Your task to perform on an android device: Show me productivity apps on the Play Store Image 0: 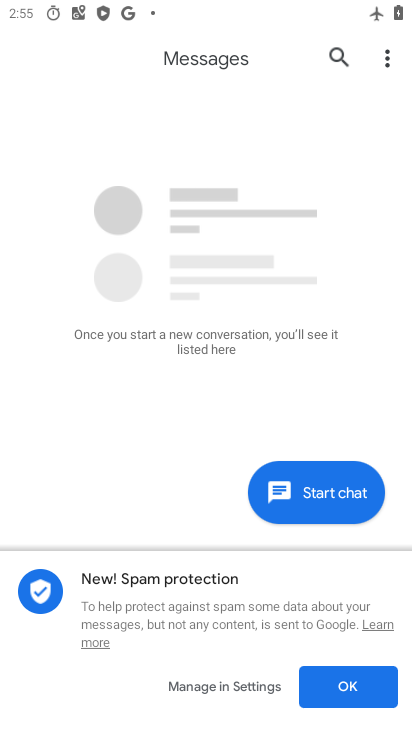
Step 0: click (187, 372)
Your task to perform on an android device: Show me productivity apps on the Play Store Image 1: 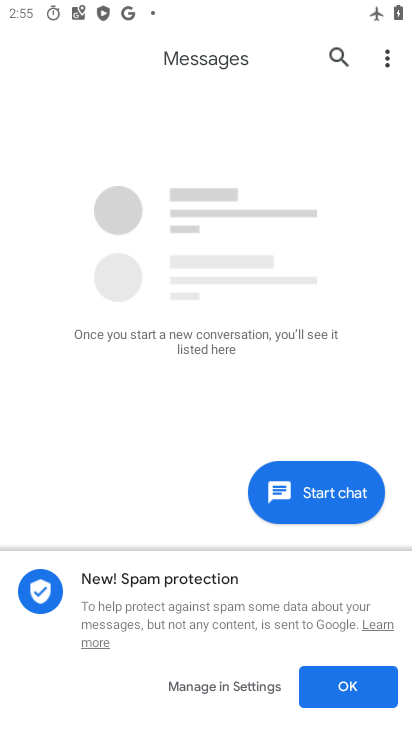
Step 1: press home button
Your task to perform on an android device: Show me productivity apps on the Play Store Image 2: 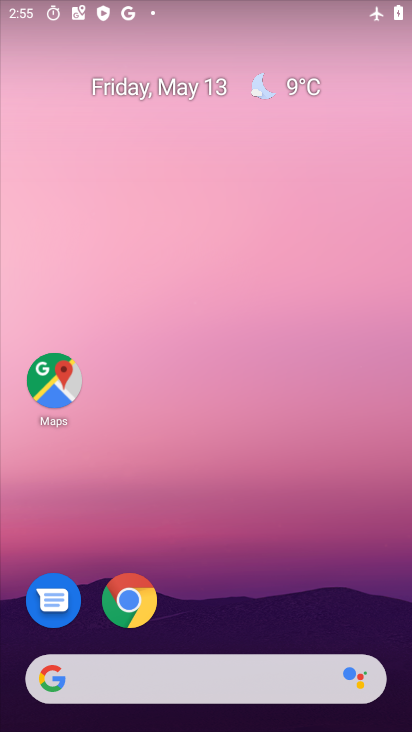
Step 2: drag from (223, 623) to (348, 117)
Your task to perform on an android device: Show me productivity apps on the Play Store Image 3: 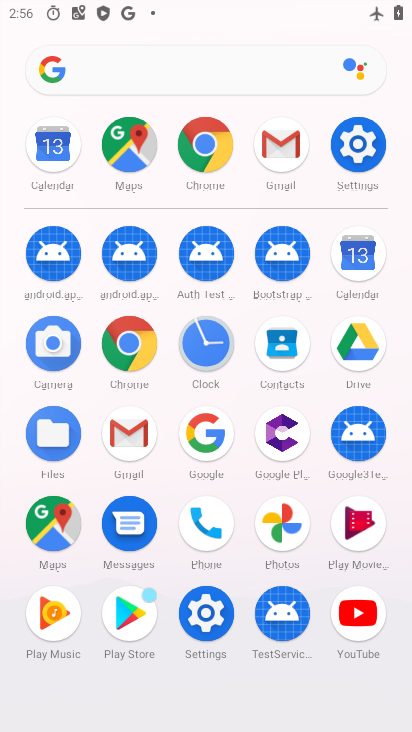
Step 3: click (130, 614)
Your task to perform on an android device: Show me productivity apps on the Play Store Image 4: 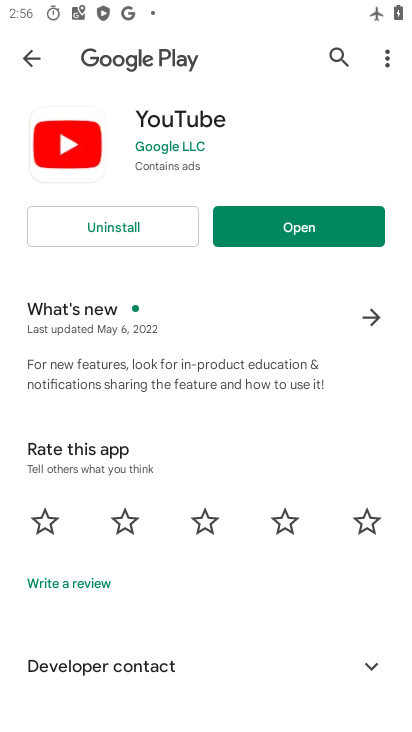
Step 4: click (14, 59)
Your task to perform on an android device: Show me productivity apps on the Play Store Image 5: 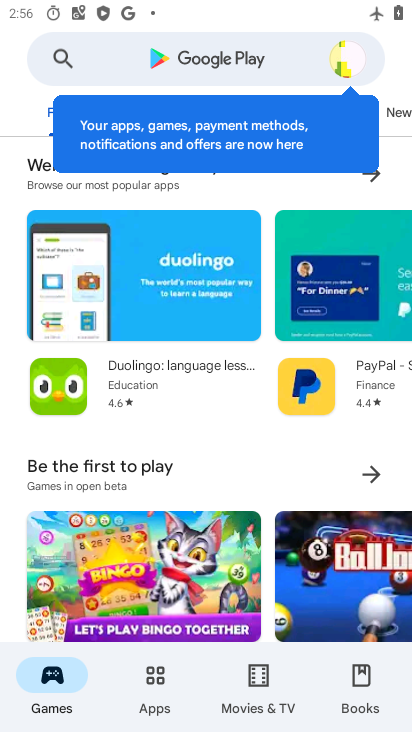
Step 5: task complete